Your task to perform on an android device: open a bookmark in the chrome app Image 0: 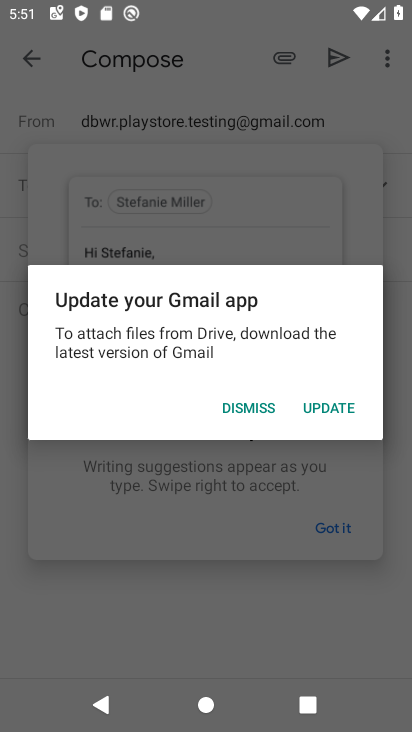
Step 0: press home button
Your task to perform on an android device: open a bookmark in the chrome app Image 1: 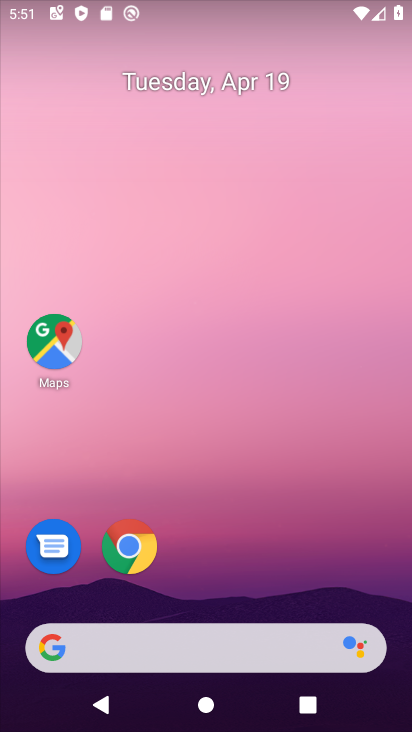
Step 1: drag from (317, 559) to (236, 6)
Your task to perform on an android device: open a bookmark in the chrome app Image 2: 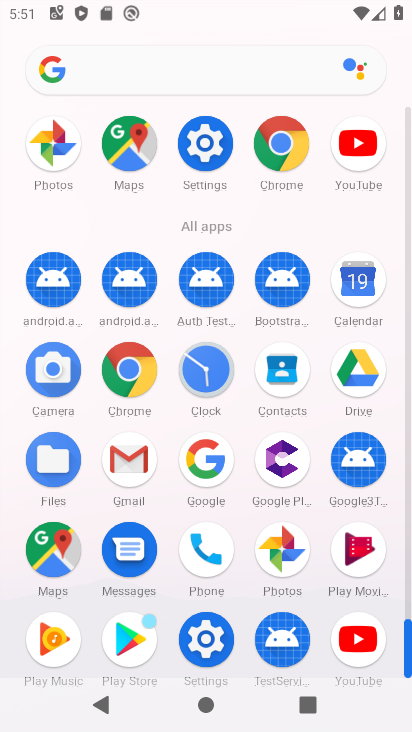
Step 2: click (128, 372)
Your task to perform on an android device: open a bookmark in the chrome app Image 3: 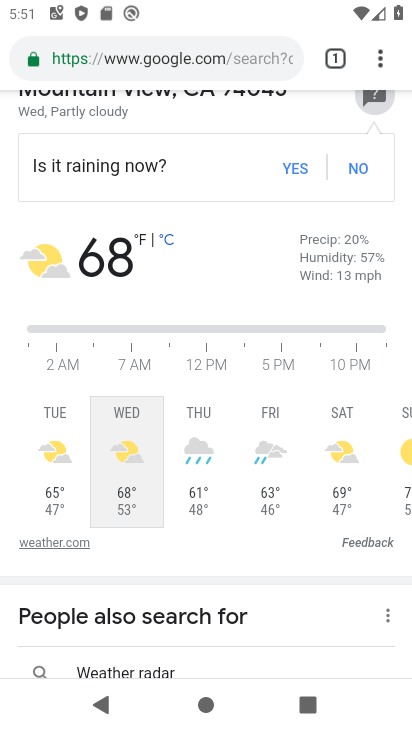
Step 3: task complete